Your task to perform on an android device: Open calendar and show me the third week of next month Image 0: 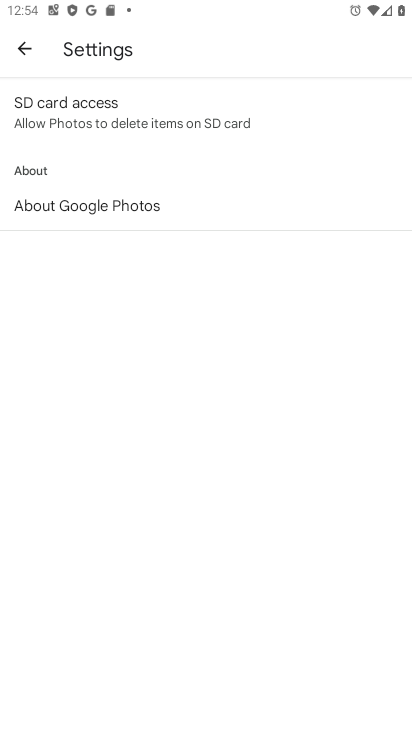
Step 0: press home button
Your task to perform on an android device: Open calendar and show me the third week of next month Image 1: 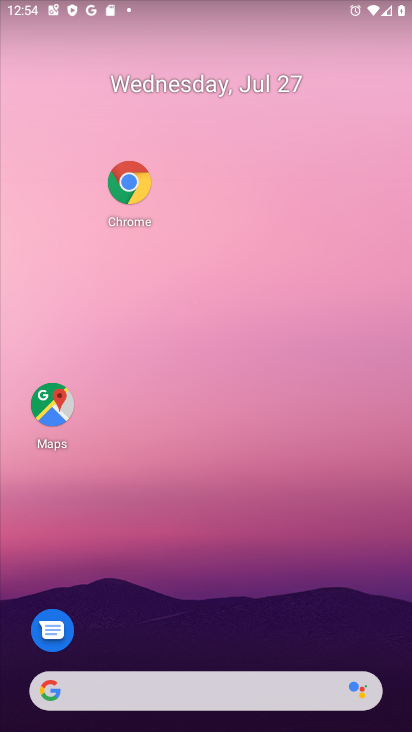
Step 1: drag from (231, 724) to (270, 336)
Your task to perform on an android device: Open calendar and show me the third week of next month Image 2: 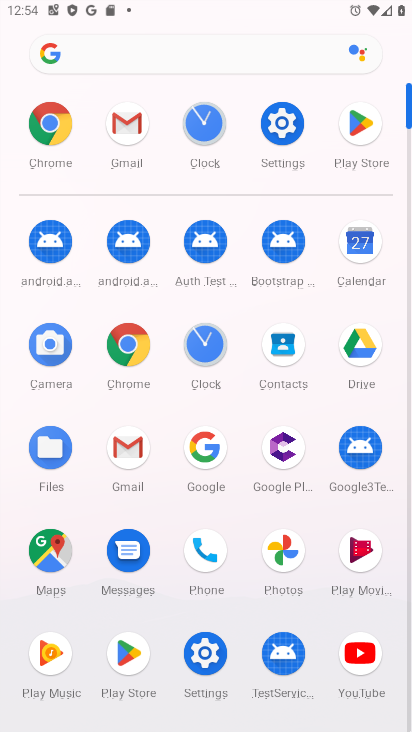
Step 2: click (365, 251)
Your task to perform on an android device: Open calendar and show me the third week of next month Image 3: 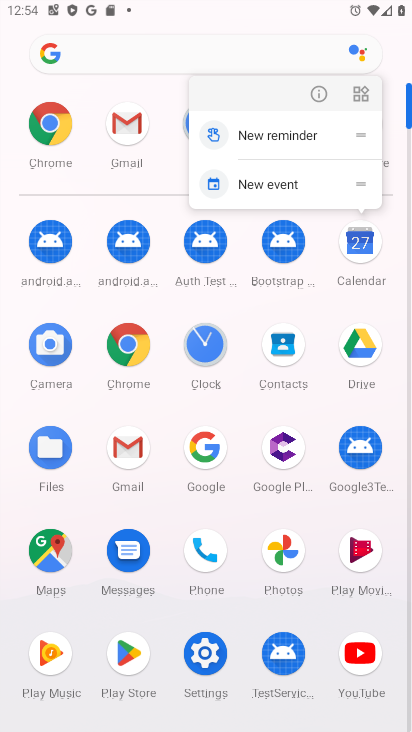
Step 3: click (365, 251)
Your task to perform on an android device: Open calendar and show me the third week of next month Image 4: 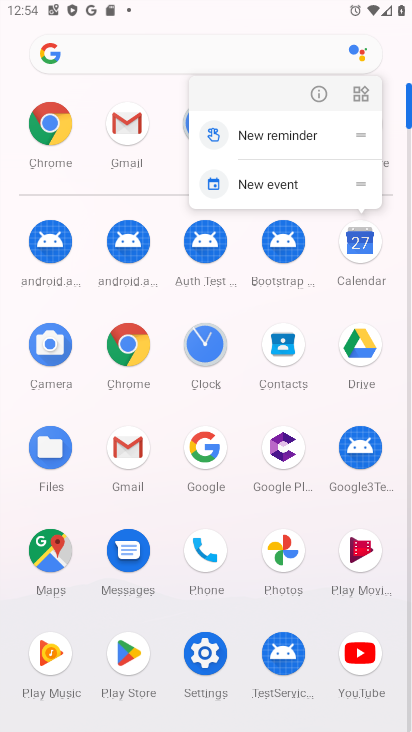
Step 4: click (365, 251)
Your task to perform on an android device: Open calendar and show me the third week of next month Image 5: 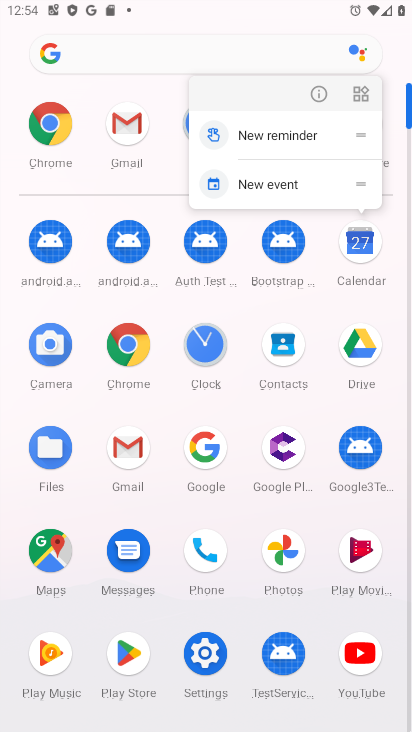
Step 5: click (365, 251)
Your task to perform on an android device: Open calendar and show me the third week of next month Image 6: 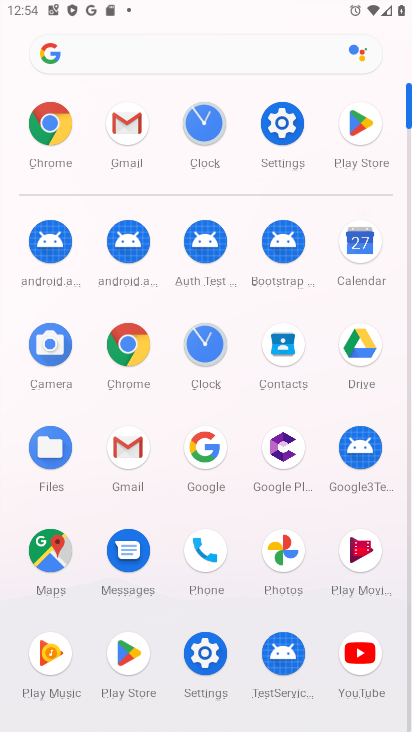
Step 6: click (365, 251)
Your task to perform on an android device: Open calendar and show me the third week of next month Image 7: 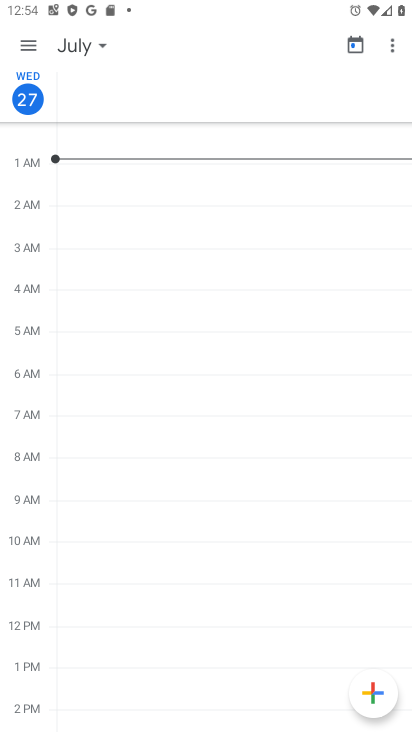
Step 7: click (72, 40)
Your task to perform on an android device: Open calendar and show me the third week of next month Image 8: 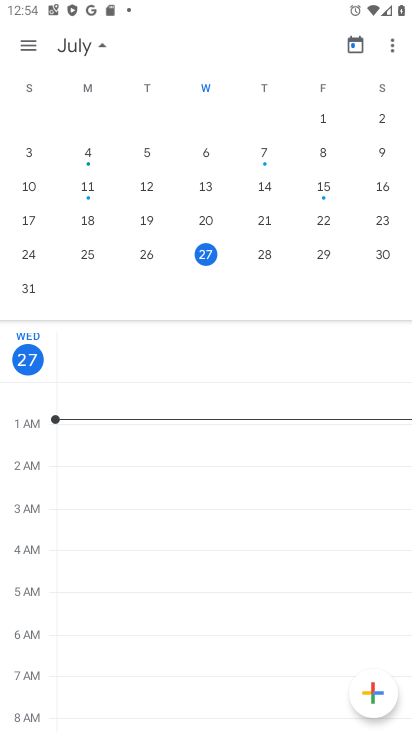
Step 8: drag from (390, 191) to (50, 133)
Your task to perform on an android device: Open calendar and show me the third week of next month Image 9: 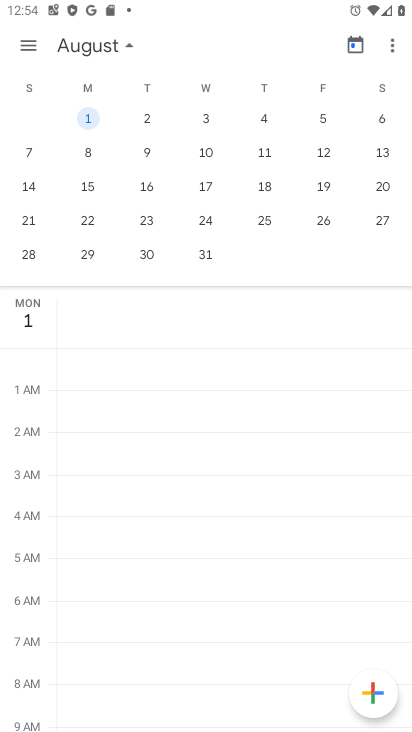
Step 9: click (37, 183)
Your task to perform on an android device: Open calendar and show me the third week of next month Image 10: 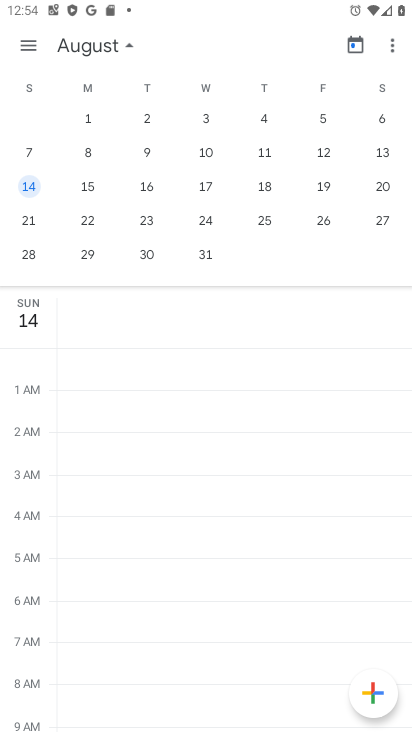
Step 10: task complete